Your task to perform on an android device: check battery use Image 0: 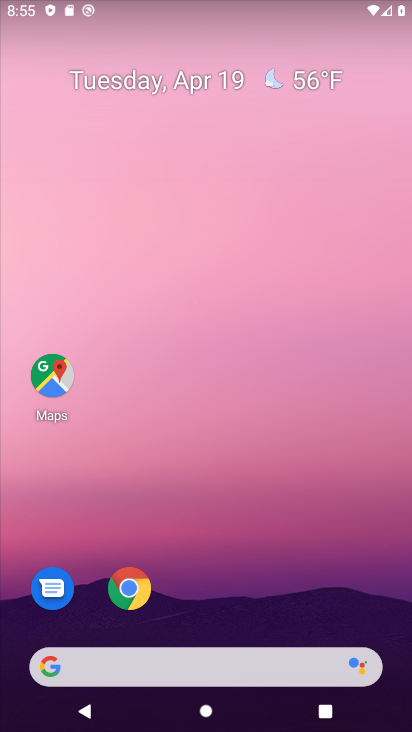
Step 0: drag from (229, 531) to (271, 62)
Your task to perform on an android device: check battery use Image 1: 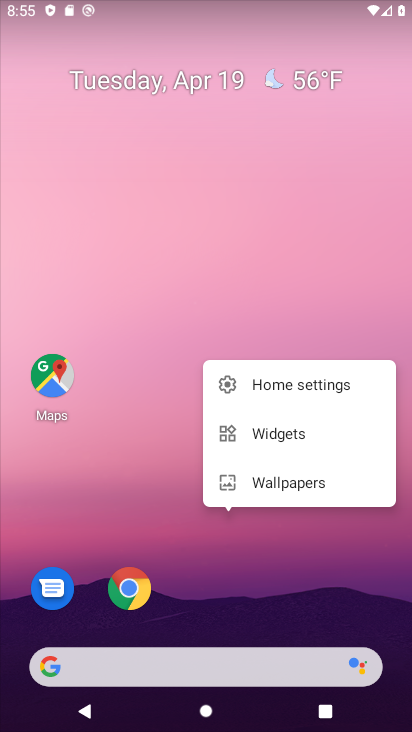
Step 1: drag from (139, 479) to (228, 122)
Your task to perform on an android device: check battery use Image 2: 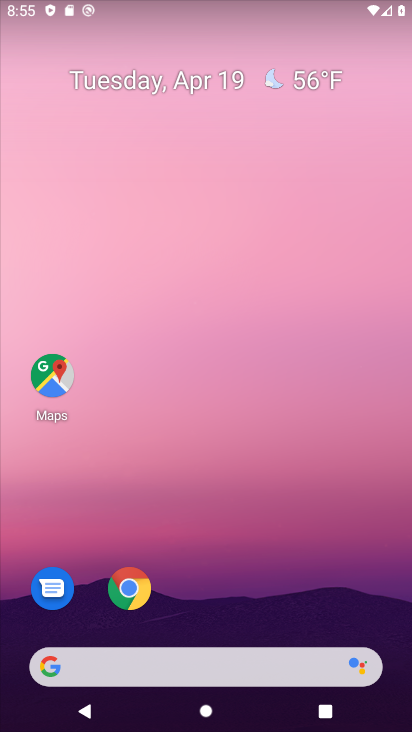
Step 2: drag from (271, 565) to (375, 28)
Your task to perform on an android device: check battery use Image 3: 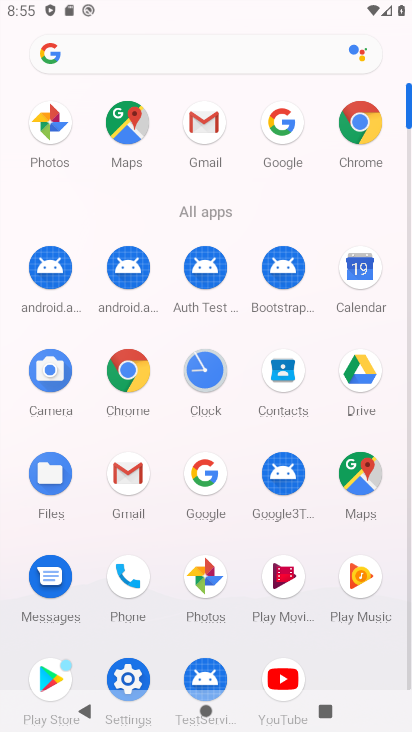
Step 3: drag from (235, 521) to (257, 242)
Your task to perform on an android device: check battery use Image 4: 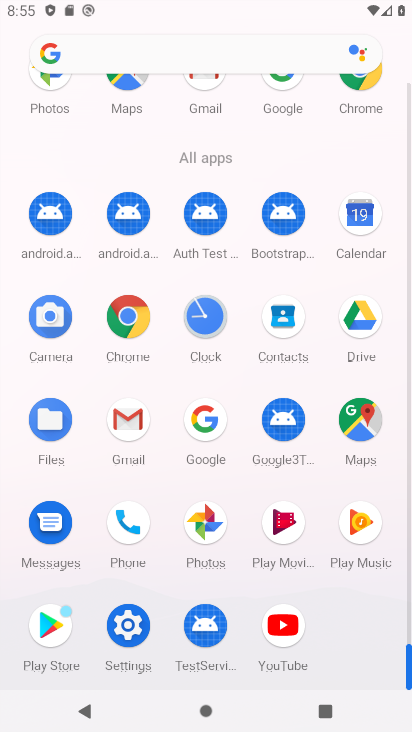
Step 4: click (128, 628)
Your task to perform on an android device: check battery use Image 5: 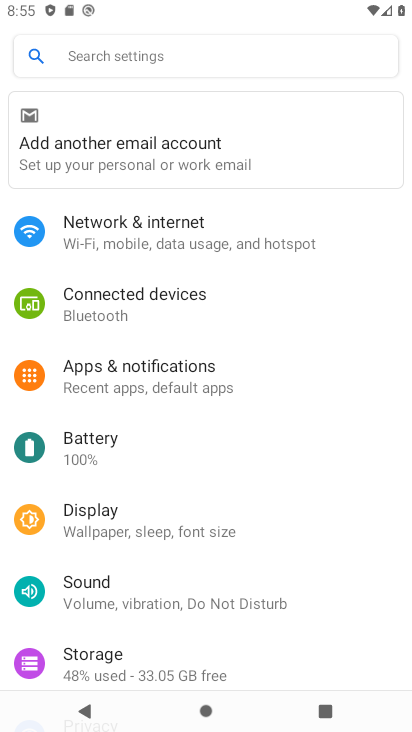
Step 5: click (101, 448)
Your task to perform on an android device: check battery use Image 6: 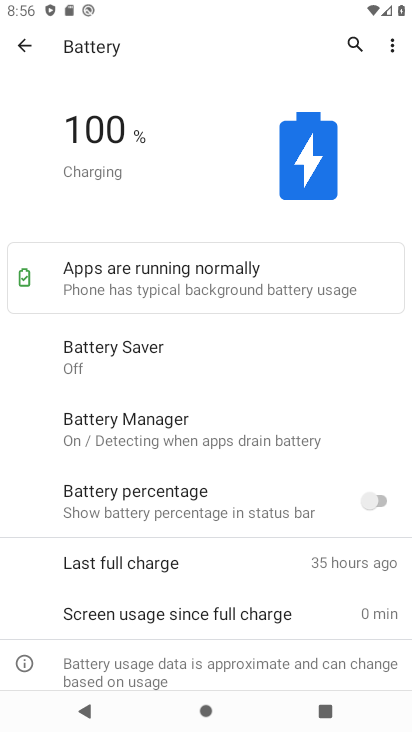
Step 6: click (394, 46)
Your task to perform on an android device: check battery use Image 7: 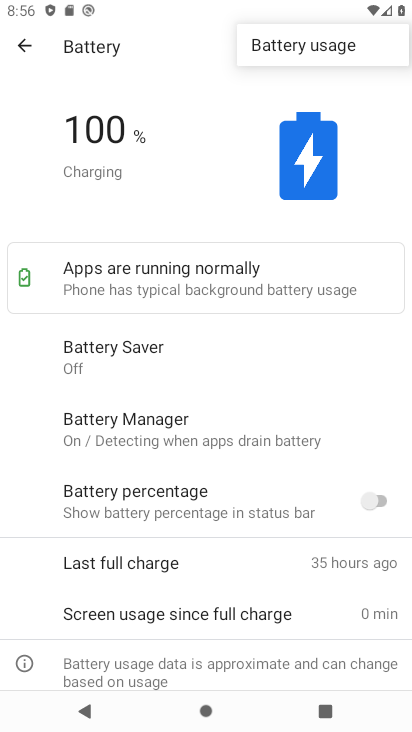
Step 7: click (342, 49)
Your task to perform on an android device: check battery use Image 8: 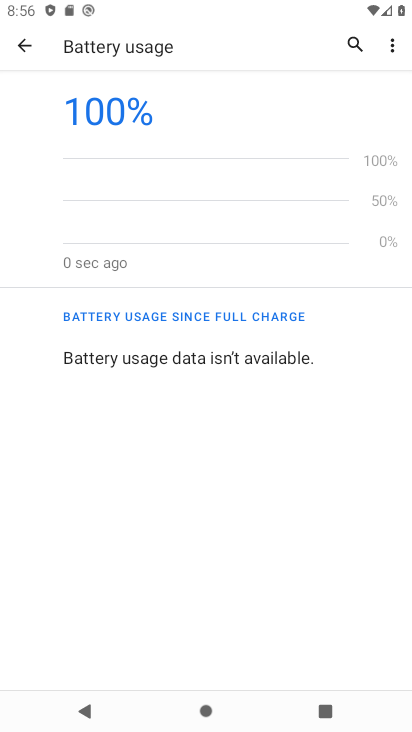
Step 8: task complete